Your task to perform on an android device: Find coffee shops on Maps Image 0: 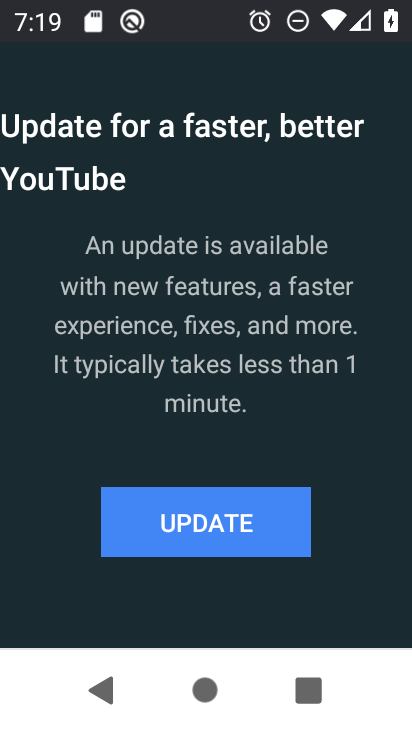
Step 0: press home button
Your task to perform on an android device: Find coffee shops on Maps Image 1: 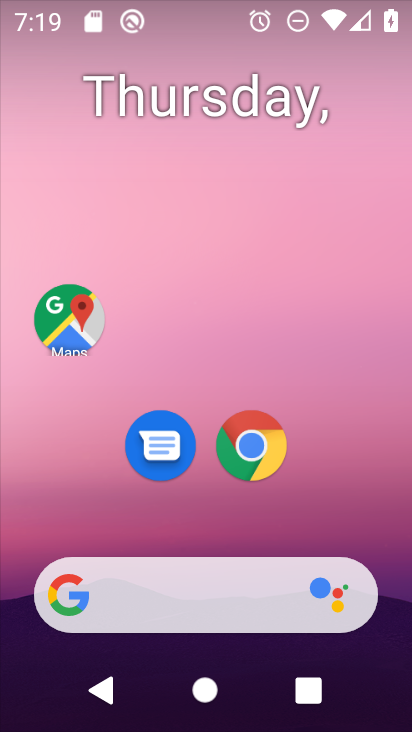
Step 1: click (63, 319)
Your task to perform on an android device: Find coffee shops on Maps Image 2: 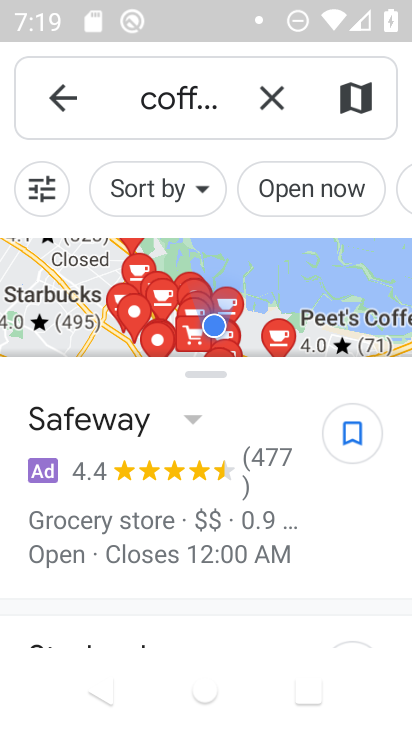
Step 2: task complete